Your task to perform on an android device: Go to ESPN.com Image 0: 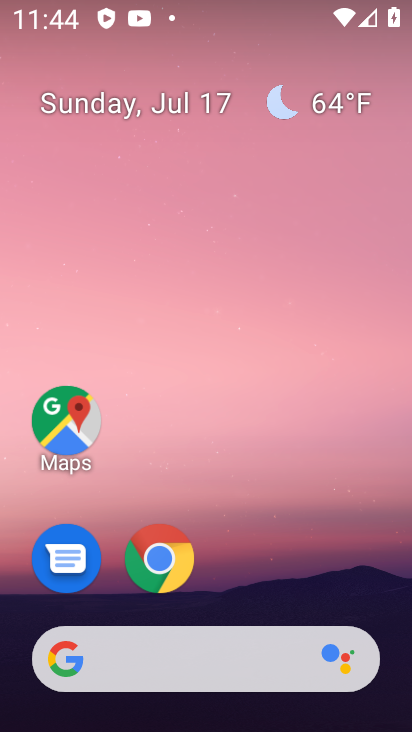
Step 0: drag from (363, 565) to (374, 41)
Your task to perform on an android device: Go to ESPN.com Image 1: 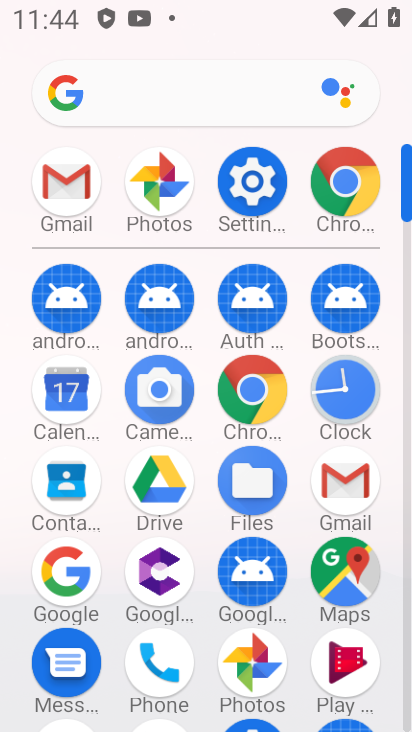
Step 1: click (257, 387)
Your task to perform on an android device: Go to ESPN.com Image 2: 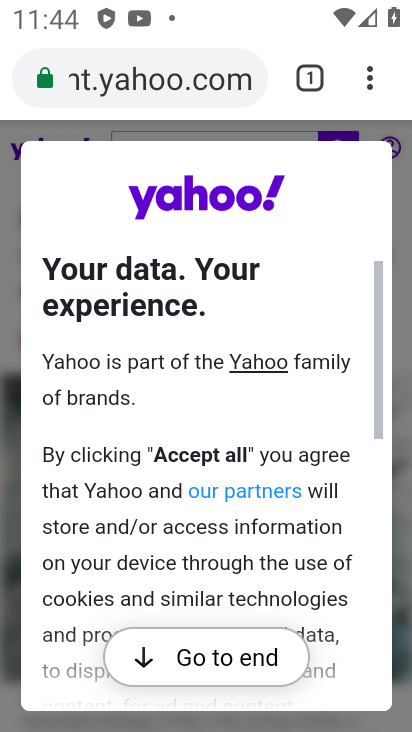
Step 2: click (219, 86)
Your task to perform on an android device: Go to ESPN.com Image 3: 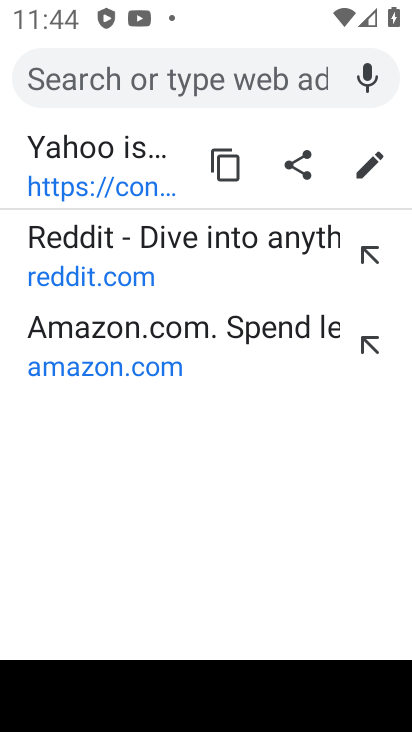
Step 3: type "espn.com"
Your task to perform on an android device: Go to ESPN.com Image 4: 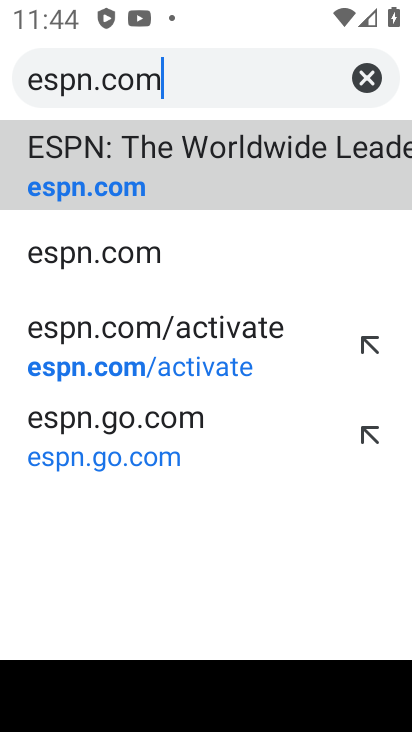
Step 4: click (288, 175)
Your task to perform on an android device: Go to ESPN.com Image 5: 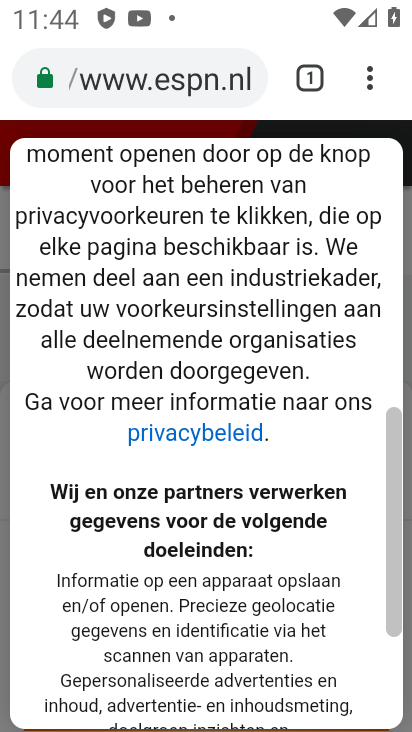
Step 5: task complete